Your task to perform on an android device: Open notification settings Image 0: 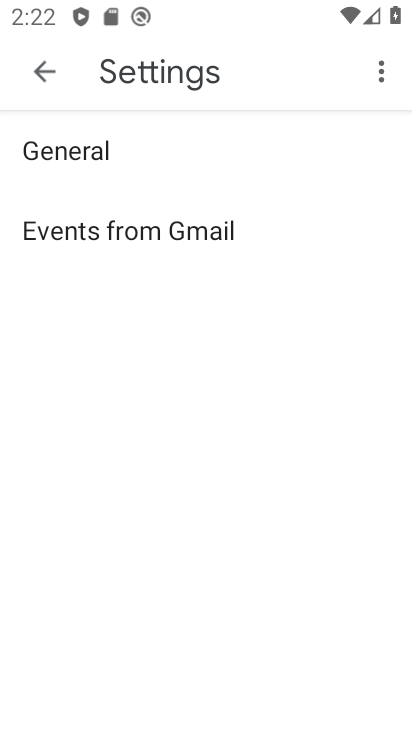
Step 0: press home button
Your task to perform on an android device: Open notification settings Image 1: 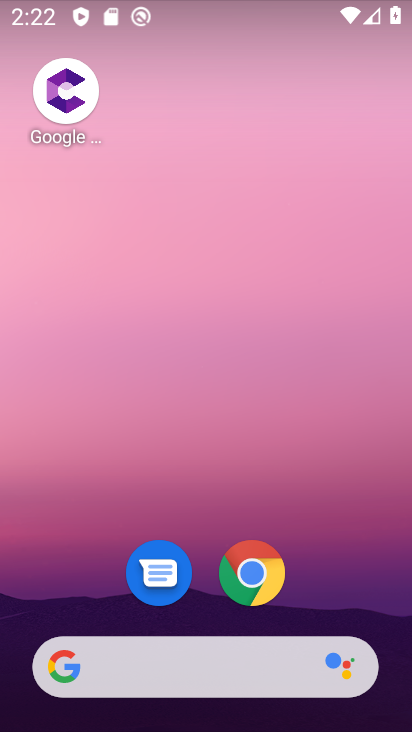
Step 1: drag from (194, 662) to (140, 139)
Your task to perform on an android device: Open notification settings Image 2: 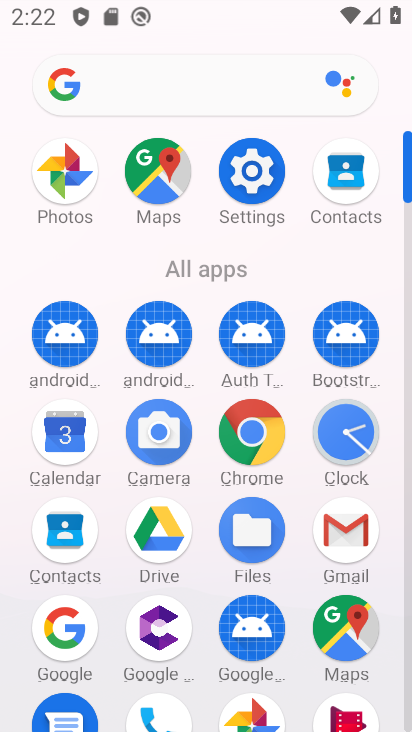
Step 2: click (242, 153)
Your task to perform on an android device: Open notification settings Image 3: 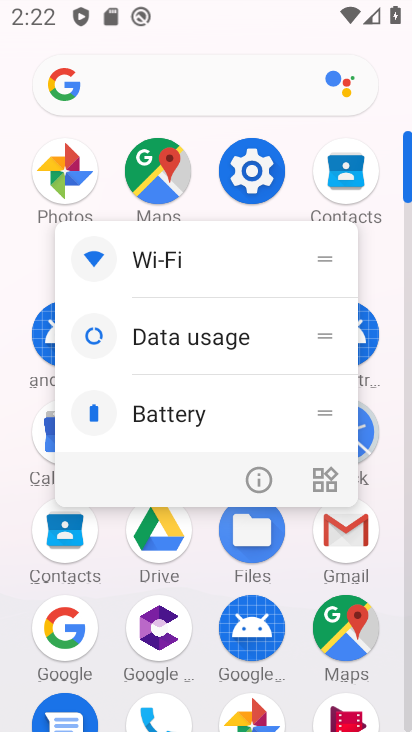
Step 3: click (258, 187)
Your task to perform on an android device: Open notification settings Image 4: 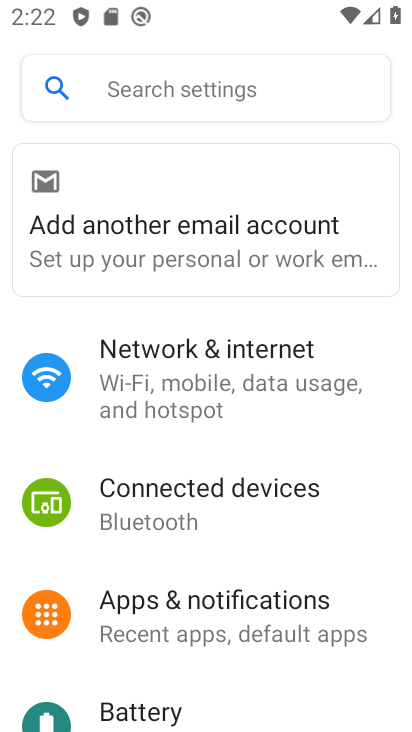
Step 4: click (272, 629)
Your task to perform on an android device: Open notification settings Image 5: 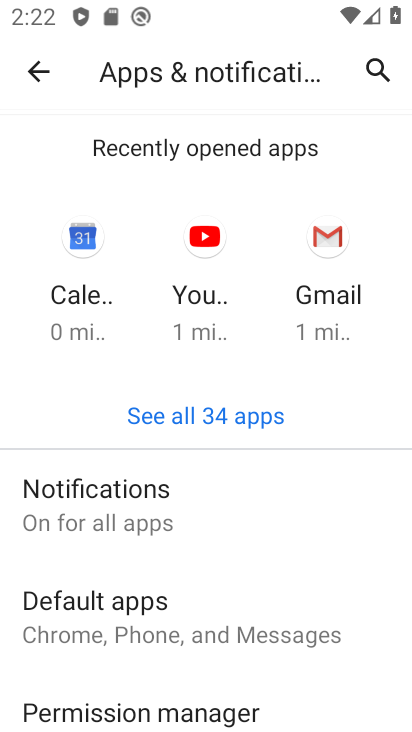
Step 5: click (183, 508)
Your task to perform on an android device: Open notification settings Image 6: 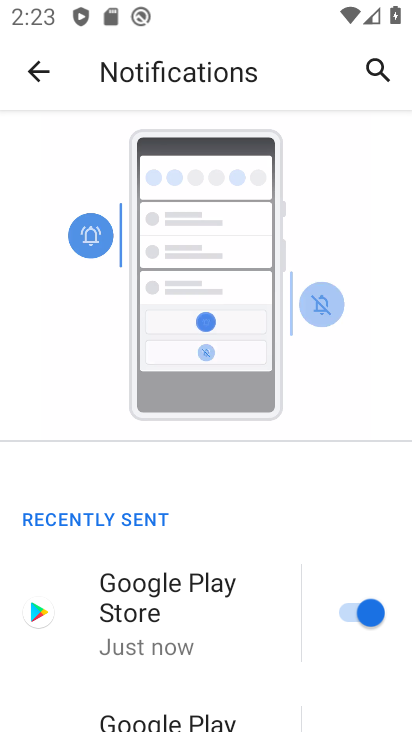
Step 6: task complete